Your task to perform on an android device: Open Google Image 0: 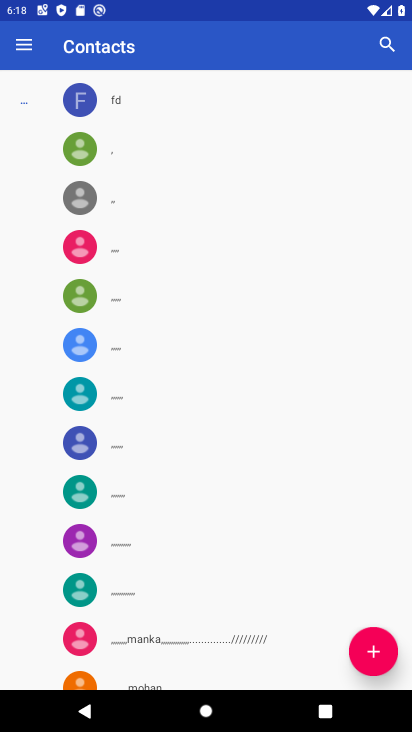
Step 0: press home button
Your task to perform on an android device: Open Google Image 1: 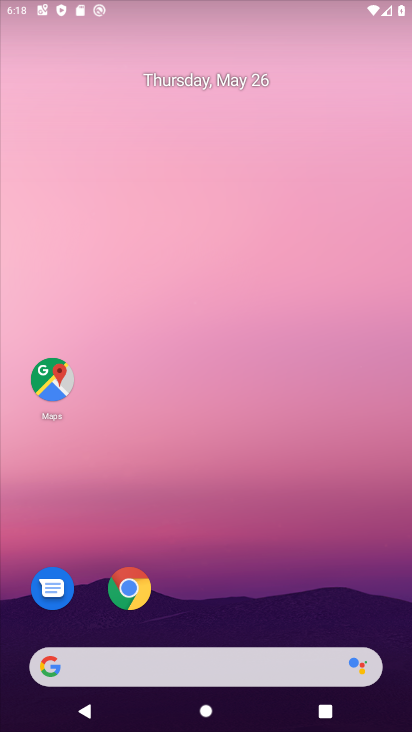
Step 1: drag from (365, 602) to (133, 35)
Your task to perform on an android device: Open Google Image 2: 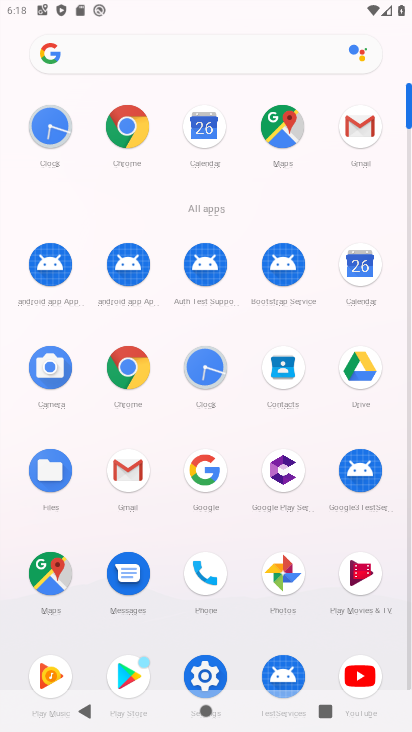
Step 2: click (216, 475)
Your task to perform on an android device: Open Google Image 3: 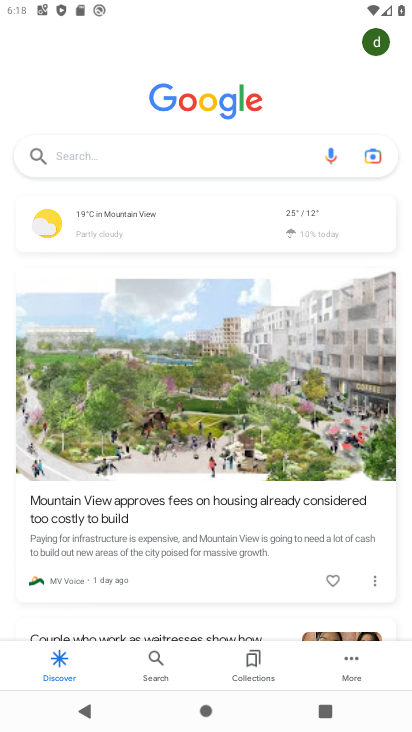
Step 3: task complete